Your task to perform on an android device: delete a single message in the gmail app Image 0: 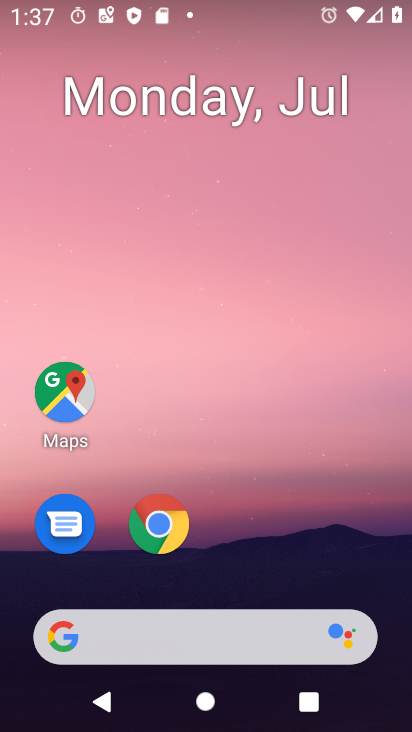
Step 0: press home button
Your task to perform on an android device: delete a single message in the gmail app Image 1: 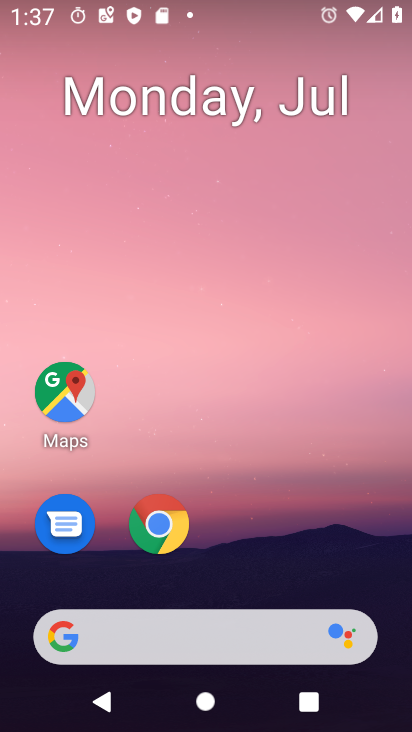
Step 1: drag from (255, 552) to (325, 60)
Your task to perform on an android device: delete a single message in the gmail app Image 2: 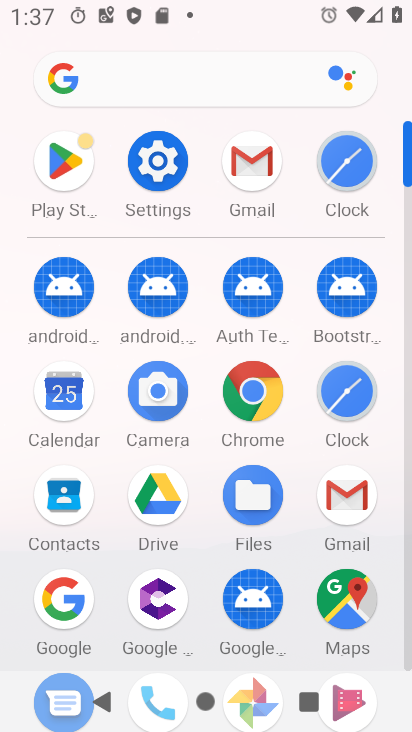
Step 2: click (255, 164)
Your task to perform on an android device: delete a single message in the gmail app Image 3: 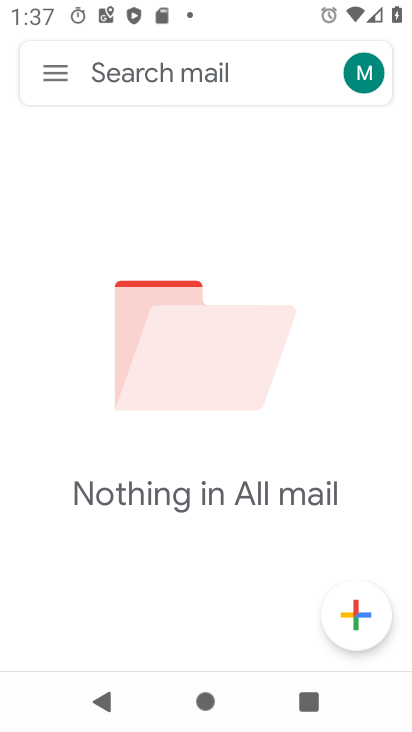
Step 3: click (61, 71)
Your task to perform on an android device: delete a single message in the gmail app Image 4: 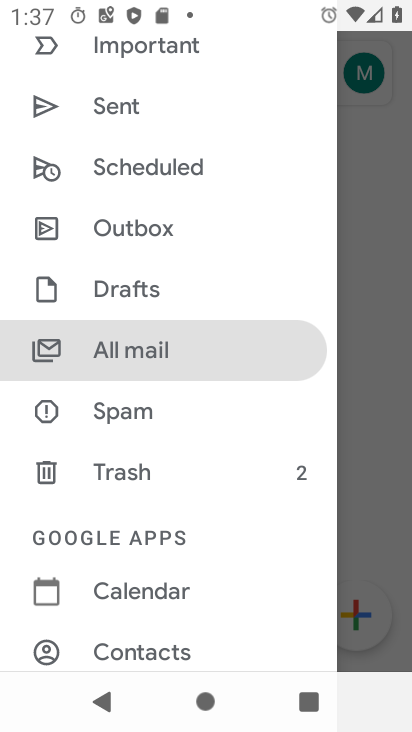
Step 4: click (143, 357)
Your task to perform on an android device: delete a single message in the gmail app Image 5: 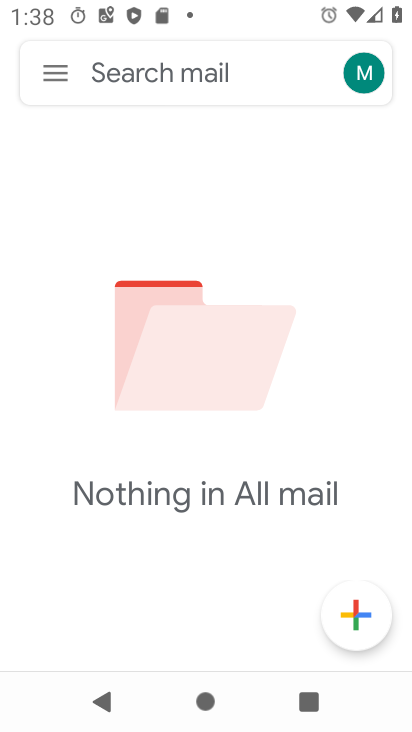
Step 5: task complete